Your task to perform on an android device: Open Chrome and go to the settings page Image 0: 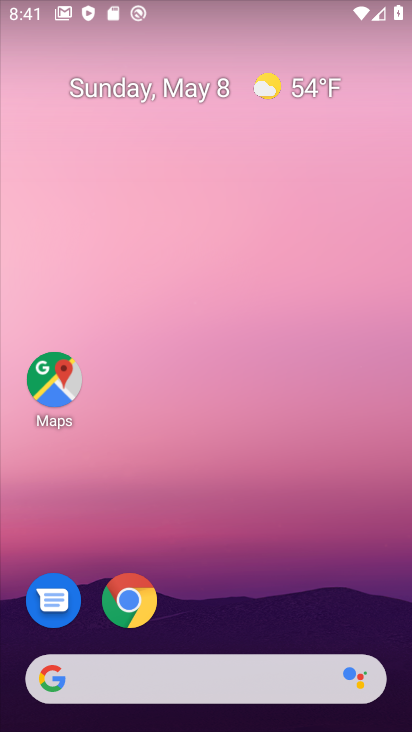
Step 0: click (128, 607)
Your task to perform on an android device: Open Chrome and go to the settings page Image 1: 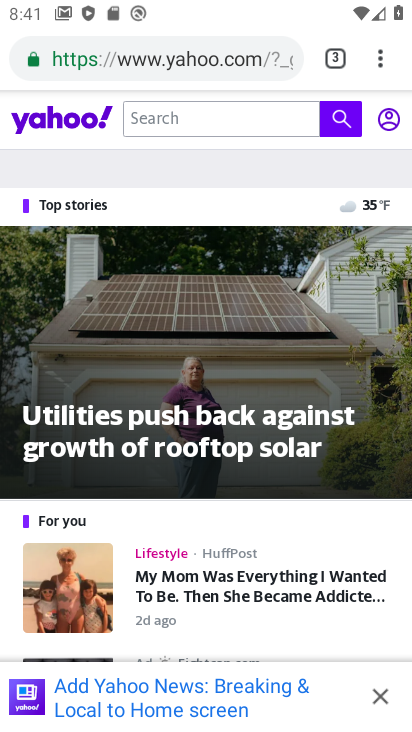
Step 1: click (365, 50)
Your task to perform on an android device: Open Chrome and go to the settings page Image 2: 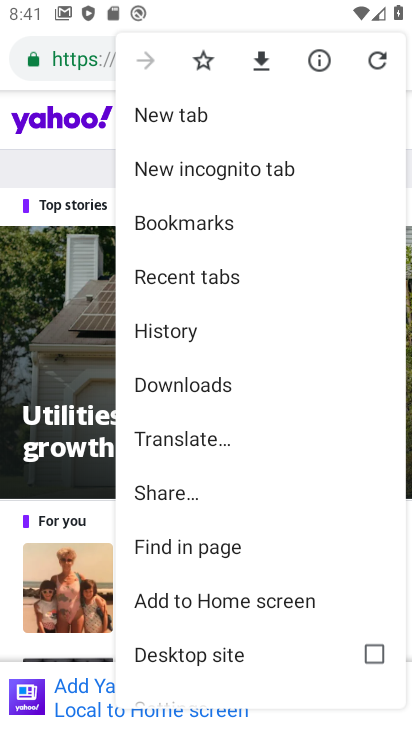
Step 2: drag from (183, 613) to (230, 148)
Your task to perform on an android device: Open Chrome and go to the settings page Image 3: 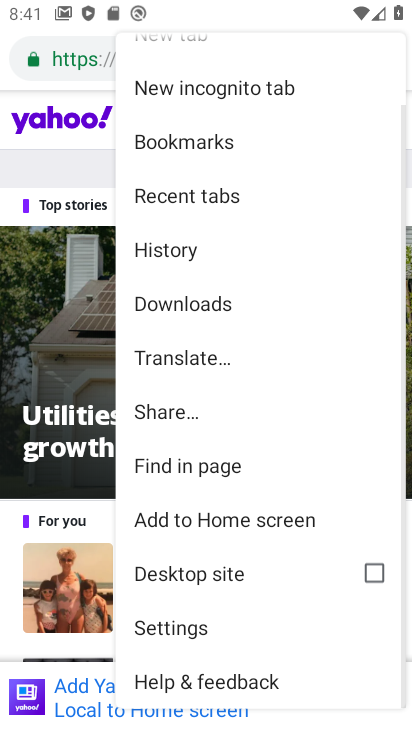
Step 3: click (205, 634)
Your task to perform on an android device: Open Chrome and go to the settings page Image 4: 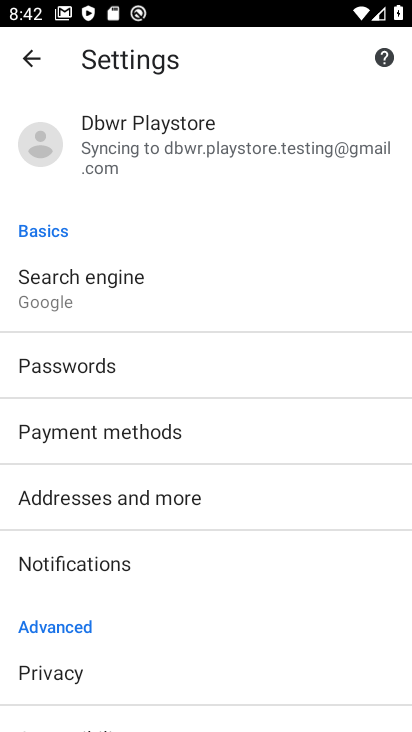
Step 4: task complete